Your task to perform on an android device: turn on priority inbox in the gmail app Image 0: 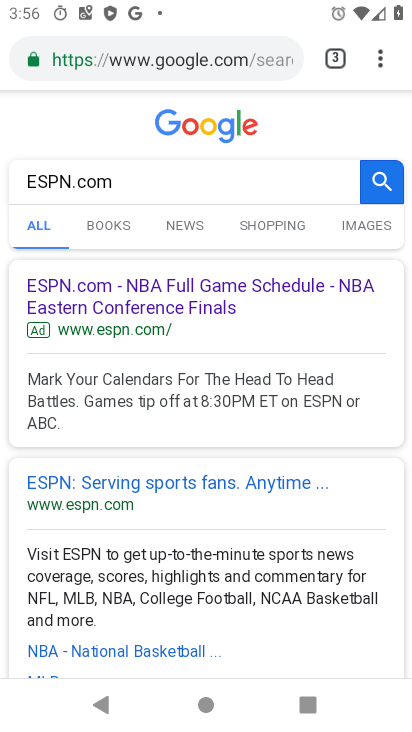
Step 0: press home button
Your task to perform on an android device: turn on priority inbox in the gmail app Image 1: 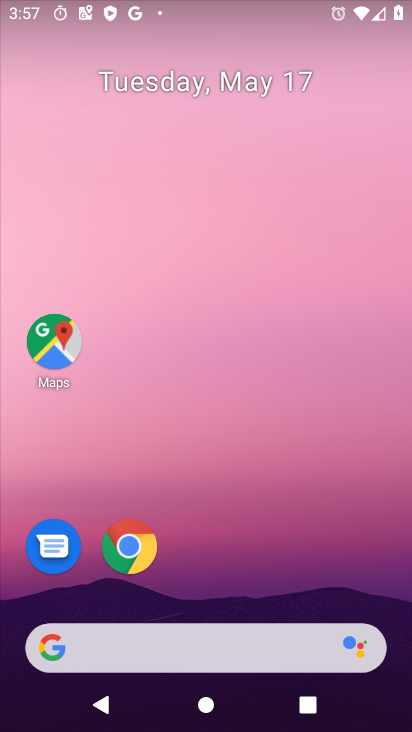
Step 1: drag from (400, 598) to (334, 247)
Your task to perform on an android device: turn on priority inbox in the gmail app Image 2: 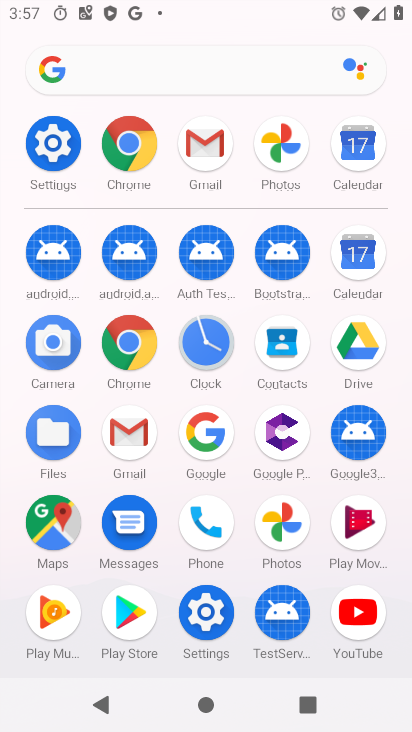
Step 2: click (139, 431)
Your task to perform on an android device: turn on priority inbox in the gmail app Image 3: 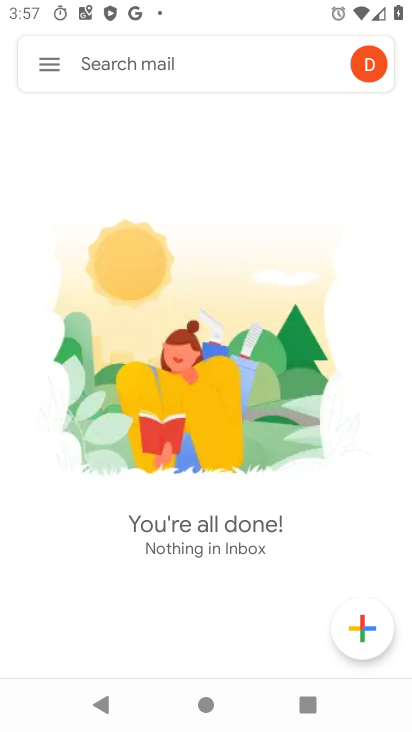
Step 3: click (48, 52)
Your task to perform on an android device: turn on priority inbox in the gmail app Image 4: 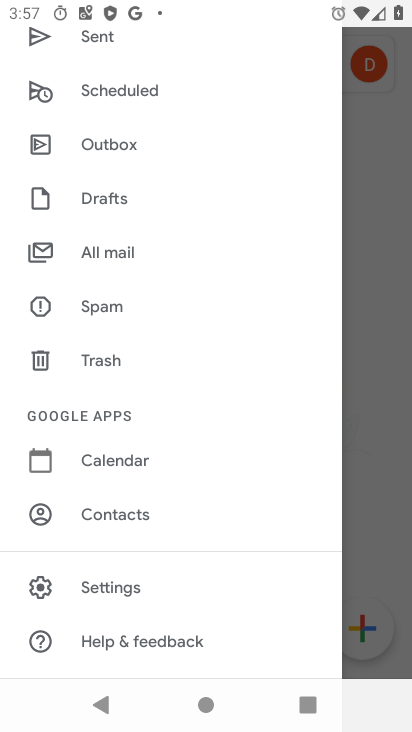
Step 4: click (107, 586)
Your task to perform on an android device: turn on priority inbox in the gmail app Image 5: 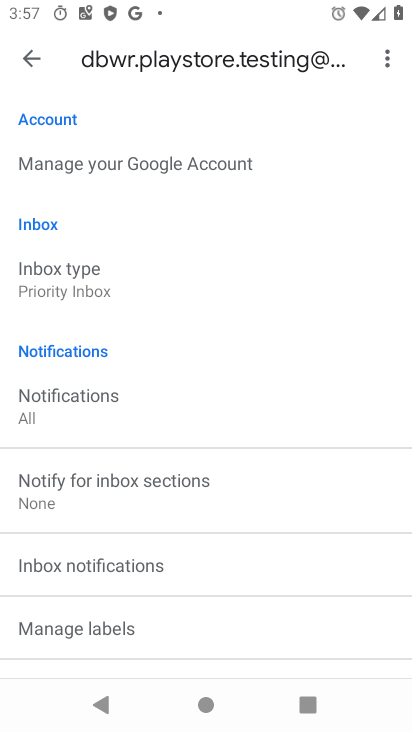
Step 5: click (58, 277)
Your task to perform on an android device: turn on priority inbox in the gmail app Image 6: 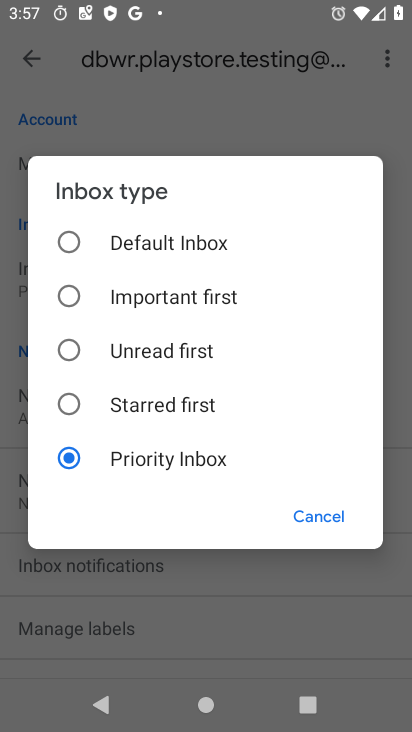
Step 6: task complete